Your task to perform on an android device: add a label to a message in the gmail app Image 0: 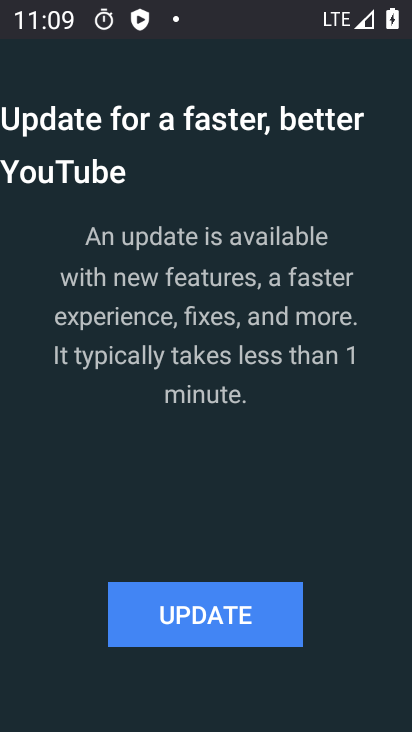
Step 0: press home button
Your task to perform on an android device: add a label to a message in the gmail app Image 1: 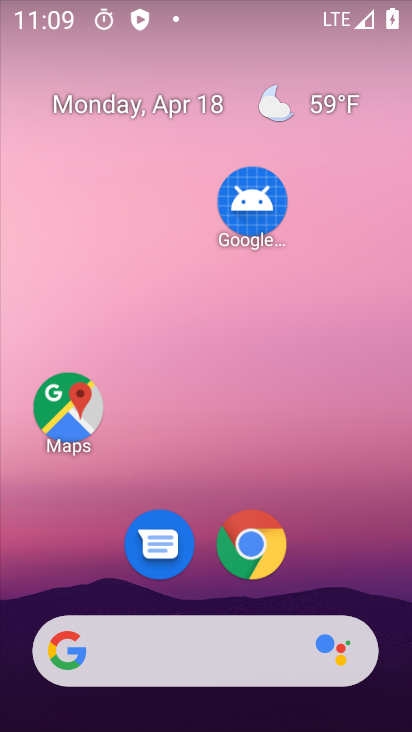
Step 1: drag from (306, 479) to (355, 133)
Your task to perform on an android device: add a label to a message in the gmail app Image 2: 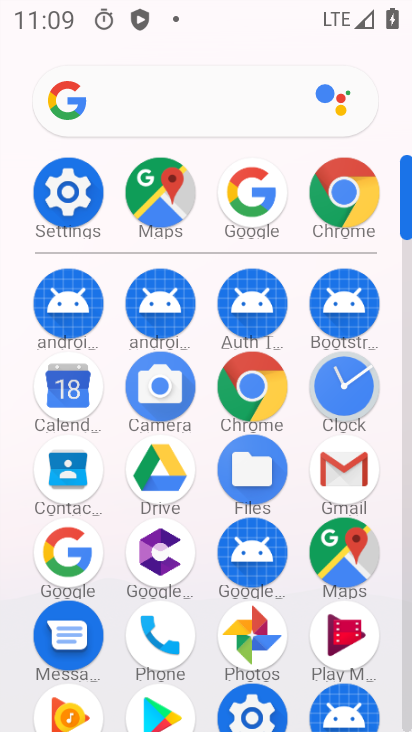
Step 2: click (226, 189)
Your task to perform on an android device: add a label to a message in the gmail app Image 3: 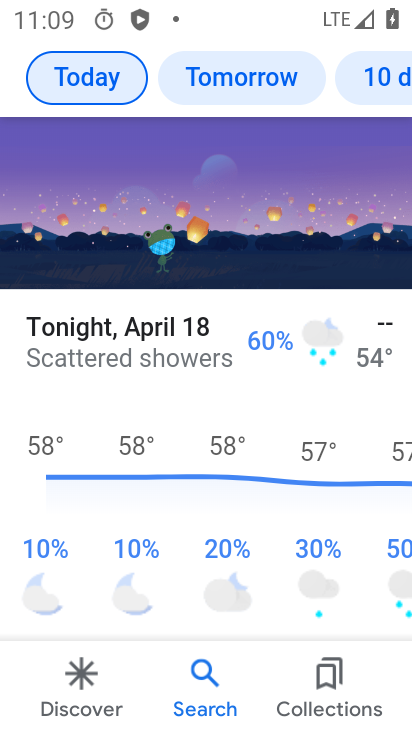
Step 3: press home button
Your task to perform on an android device: add a label to a message in the gmail app Image 4: 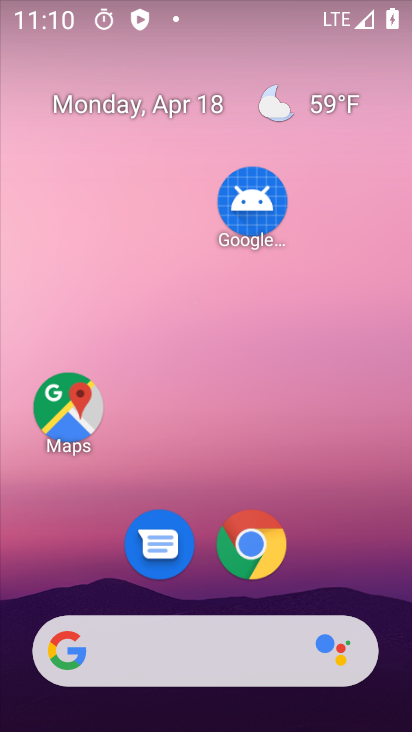
Step 4: drag from (213, 593) to (286, 222)
Your task to perform on an android device: add a label to a message in the gmail app Image 5: 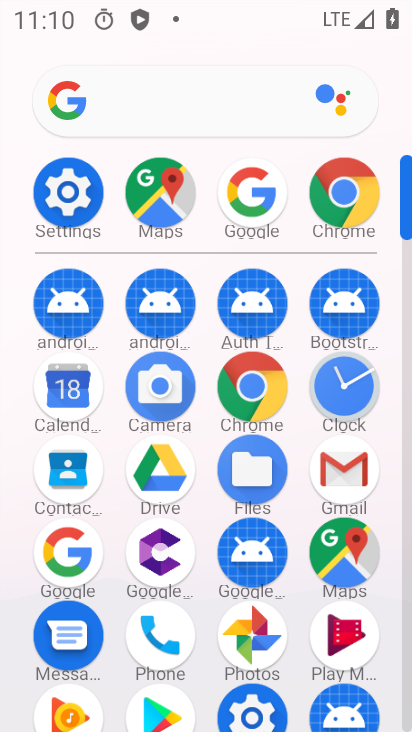
Step 5: click (347, 467)
Your task to perform on an android device: add a label to a message in the gmail app Image 6: 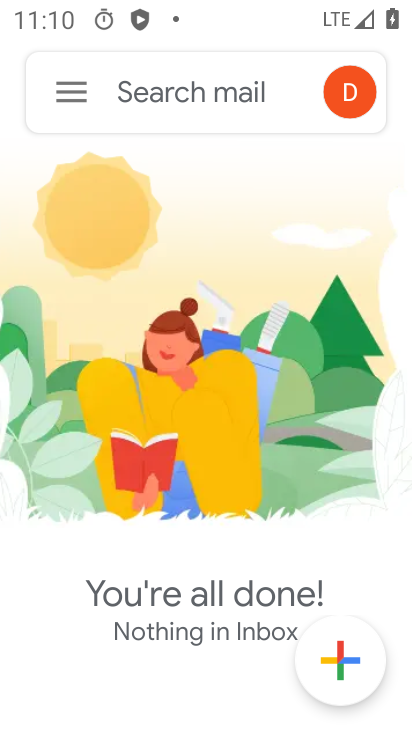
Step 6: click (84, 82)
Your task to perform on an android device: add a label to a message in the gmail app Image 7: 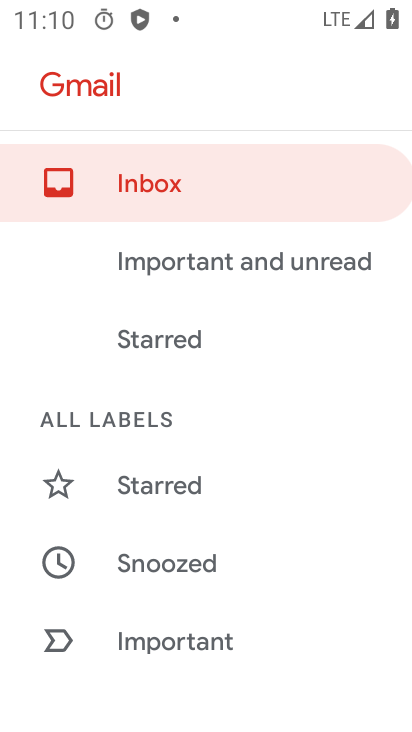
Step 7: drag from (195, 497) to (194, 172)
Your task to perform on an android device: add a label to a message in the gmail app Image 8: 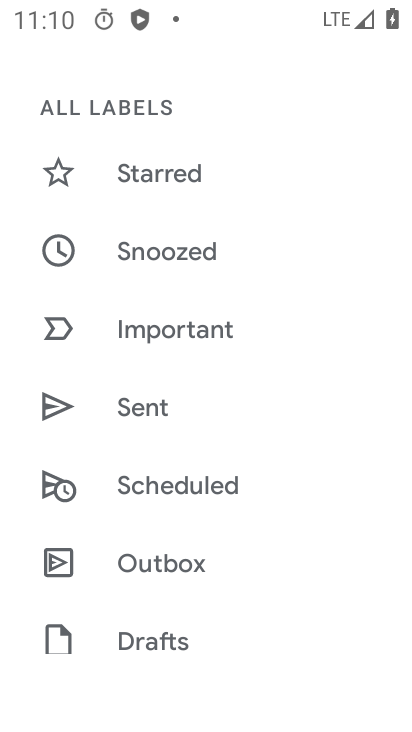
Step 8: drag from (167, 565) to (219, 190)
Your task to perform on an android device: add a label to a message in the gmail app Image 9: 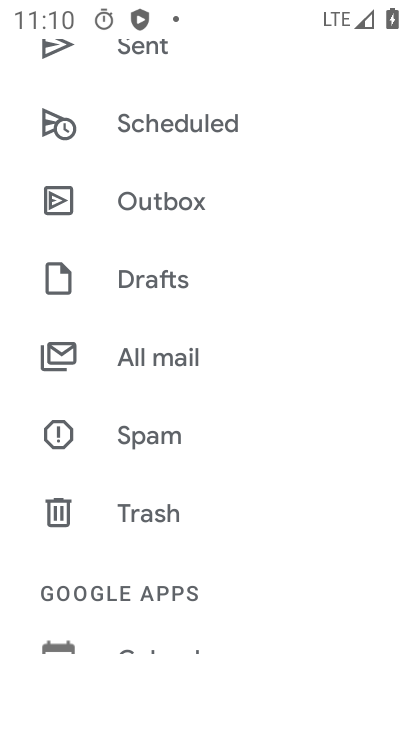
Step 9: click (175, 373)
Your task to perform on an android device: add a label to a message in the gmail app Image 10: 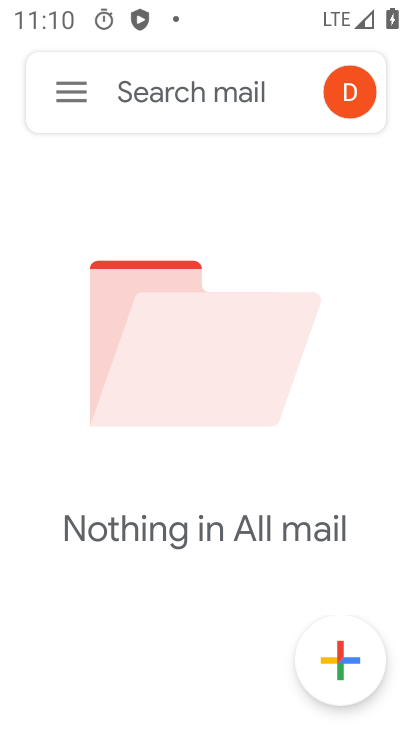
Step 10: click (59, 73)
Your task to perform on an android device: add a label to a message in the gmail app Image 11: 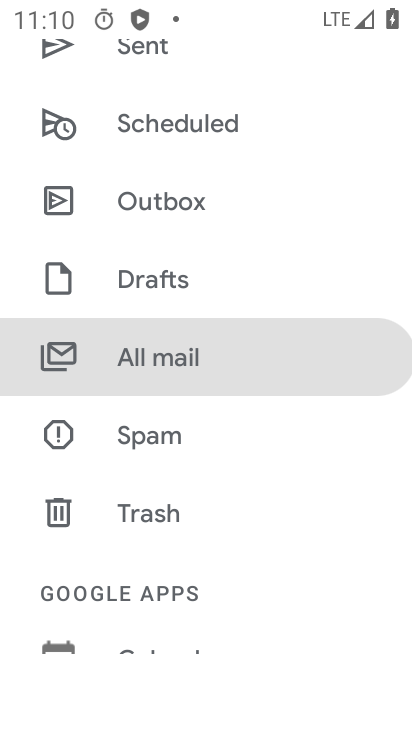
Step 11: drag from (183, 197) to (174, 657)
Your task to perform on an android device: add a label to a message in the gmail app Image 12: 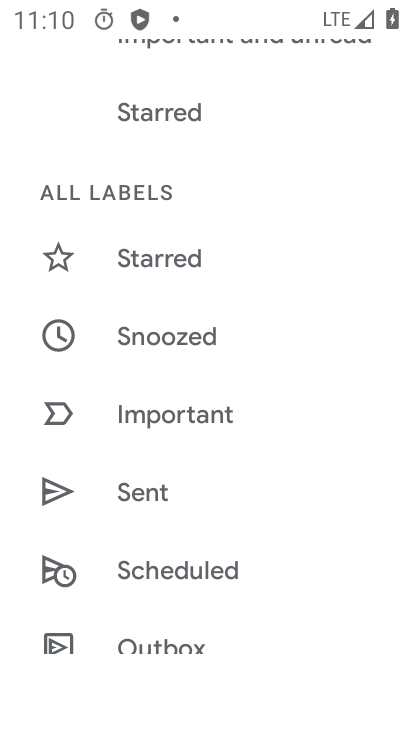
Step 12: drag from (190, 259) to (204, 576)
Your task to perform on an android device: add a label to a message in the gmail app Image 13: 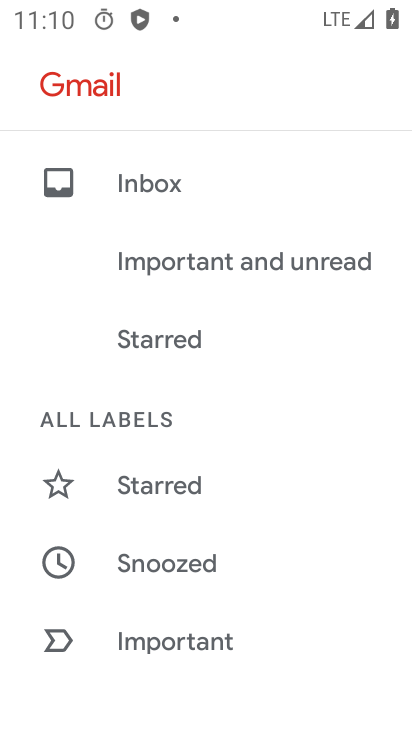
Step 13: click (235, 185)
Your task to perform on an android device: add a label to a message in the gmail app Image 14: 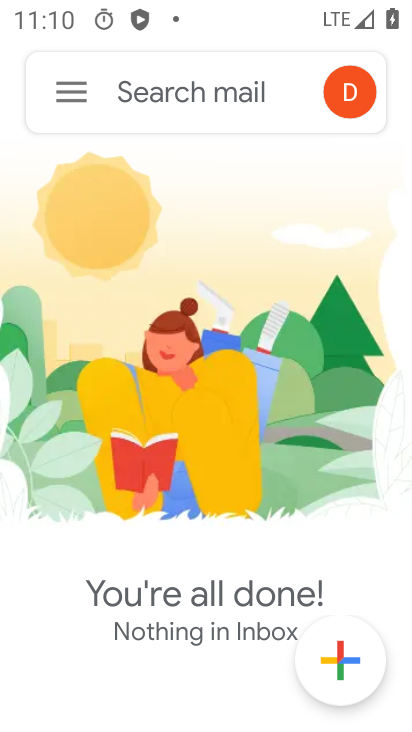
Step 14: click (68, 96)
Your task to perform on an android device: add a label to a message in the gmail app Image 15: 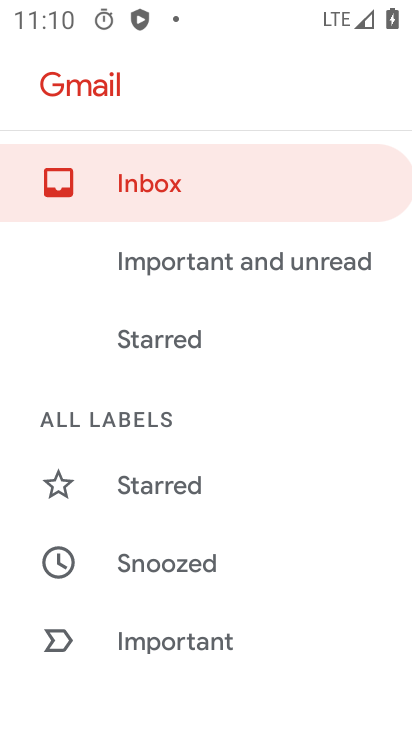
Step 15: task complete